Your task to perform on an android device: Open Amazon Image 0: 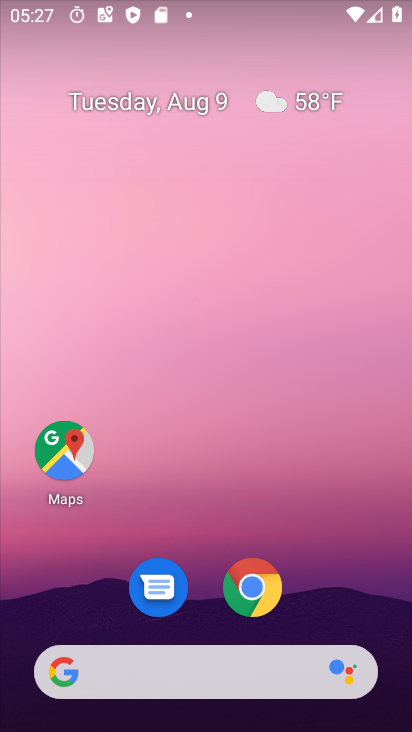
Step 0: click (238, 597)
Your task to perform on an android device: Open Amazon Image 1: 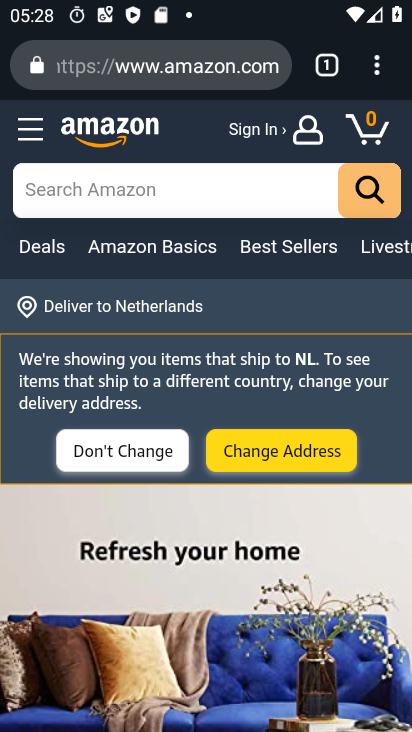
Step 1: task complete